Your task to perform on an android device: Open ESPN.com Image 0: 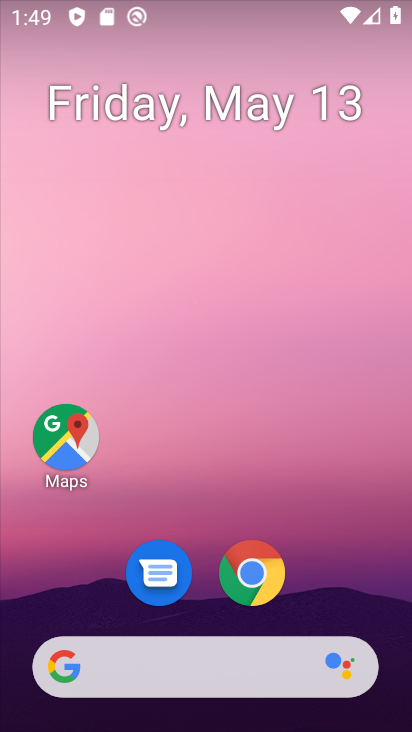
Step 0: click (266, 570)
Your task to perform on an android device: Open ESPN.com Image 1: 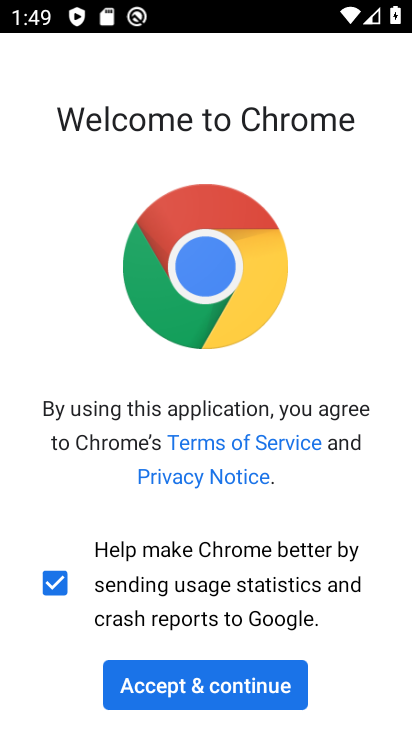
Step 1: click (225, 680)
Your task to perform on an android device: Open ESPN.com Image 2: 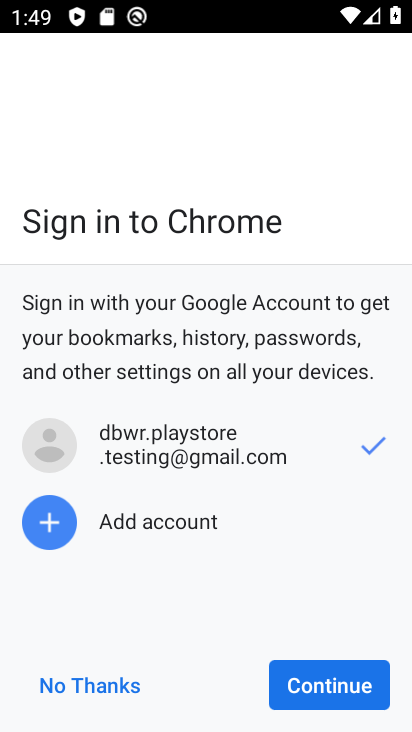
Step 2: click (306, 693)
Your task to perform on an android device: Open ESPN.com Image 3: 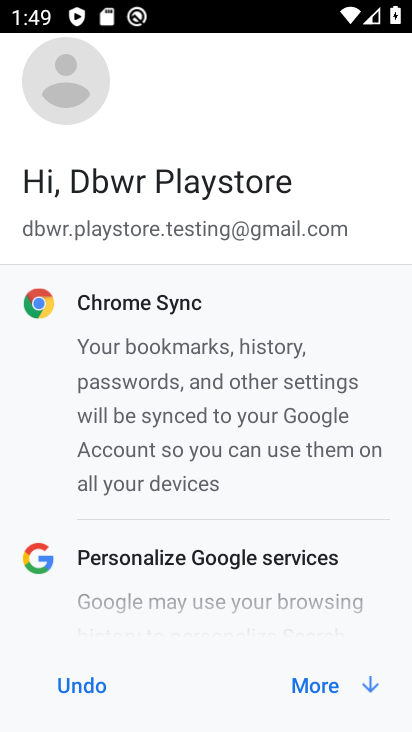
Step 3: click (312, 666)
Your task to perform on an android device: Open ESPN.com Image 4: 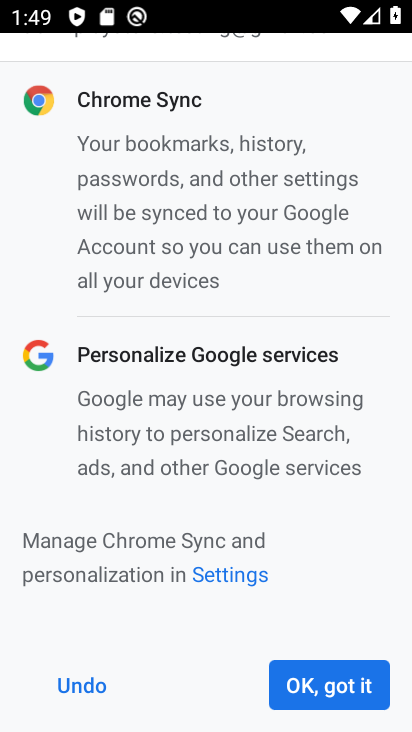
Step 4: click (312, 666)
Your task to perform on an android device: Open ESPN.com Image 5: 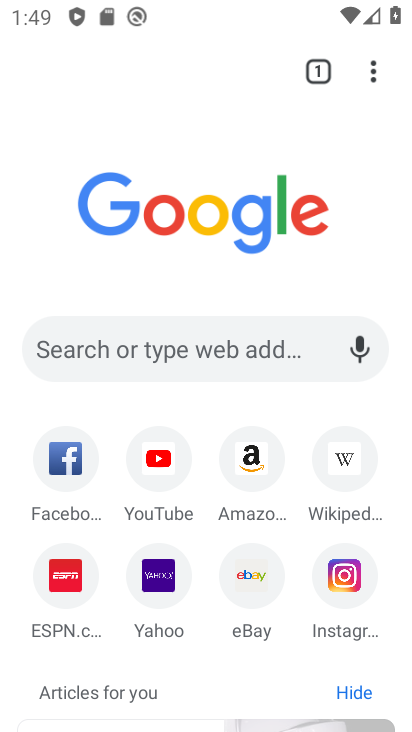
Step 5: click (72, 580)
Your task to perform on an android device: Open ESPN.com Image 6: 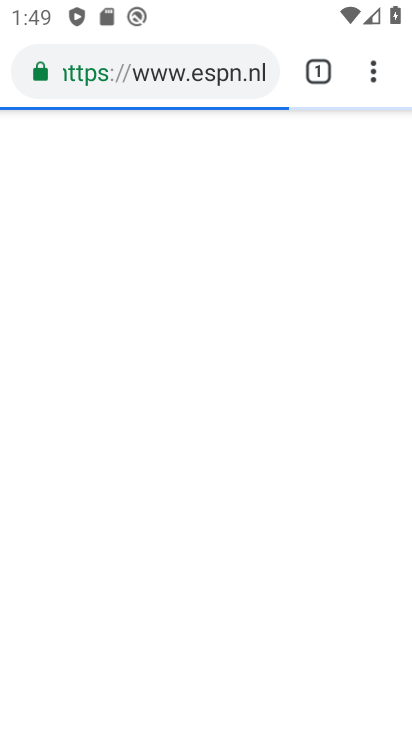
Step 6: click (72, 580)
Your task to perform on an android device: Open ESPN.com Image 7: 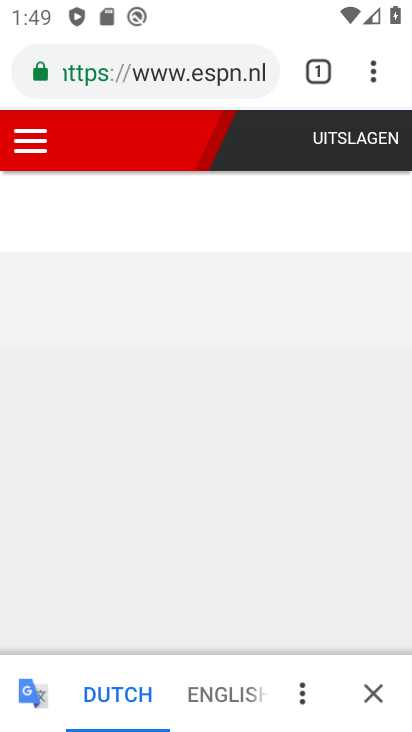
Step 7: task complete